Your task to perform on an android device: turn off picture-in-picture Image 0: 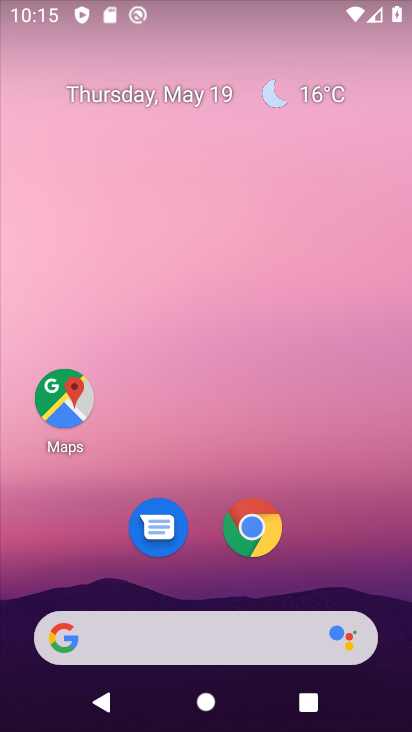
Step 0: click (204, 188)
Your task to perform on an android device: turn off picture-in-picture Image 1: 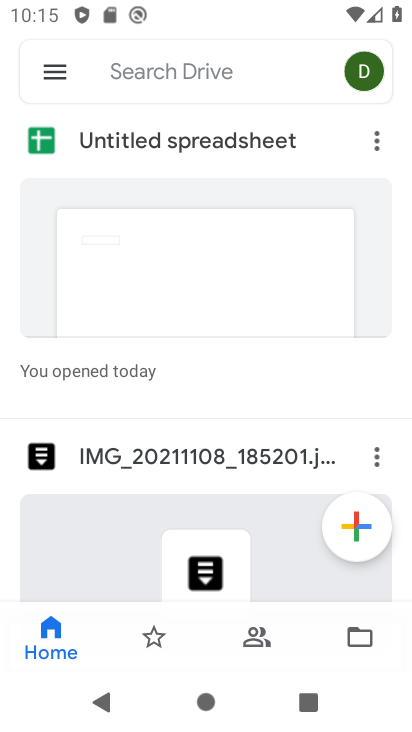
Step 1: press home button
Your task to perform on an android device: turn off picture-in-picture Image 2: 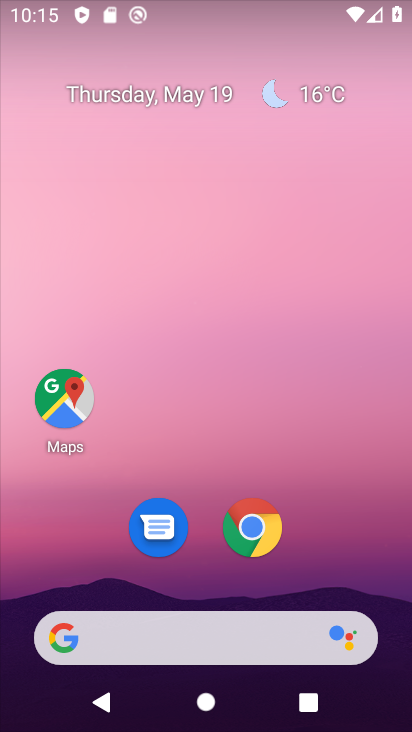
Step 2: click (258, 528)
Your task to perform on an android device: turn off picture-in-picture Image 3: 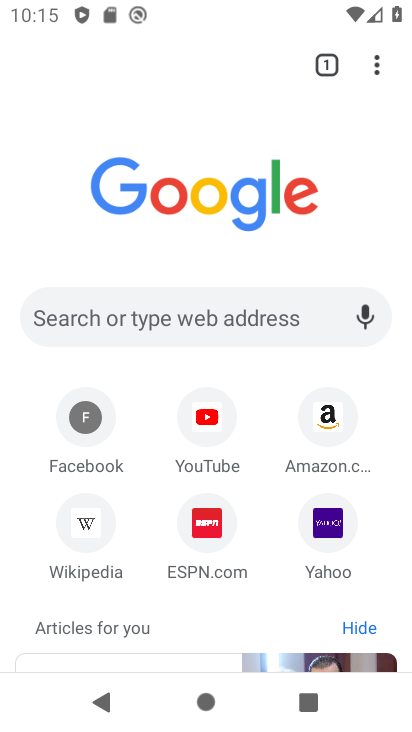
Step 3: press home button
Your task to perform on an android device: turn off picture-in-picture Image 4: 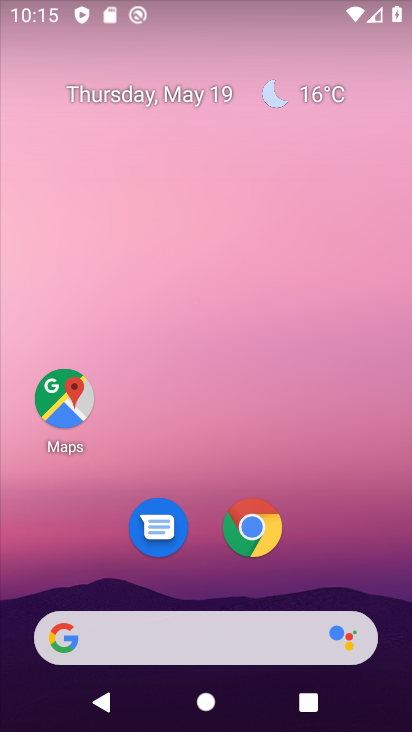
Step 4: click (247, 530)
Your task to perform on an android device: turn off picture-in-picture Image 5: 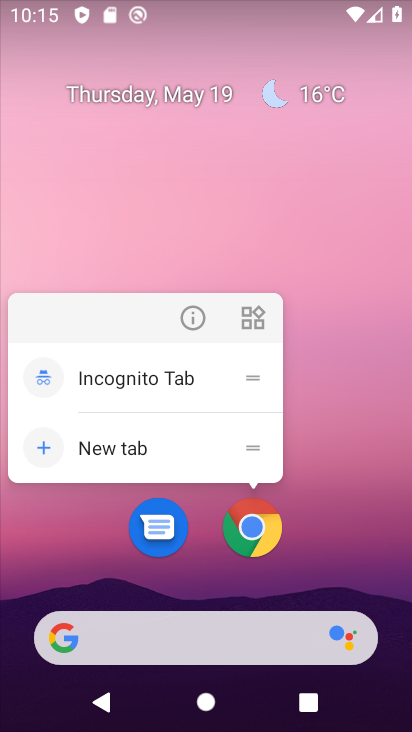
Step 5: click (191, 317)
Your task to perform on an android device: turn off picture-in-picture Image 6: 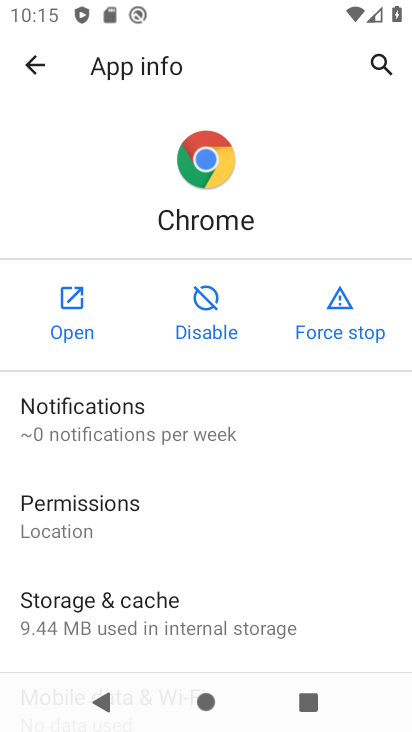
Step 6: drag from (187, 568) to (174, 308)
Your task to perform on an android device: turn off picture-in-picture Image 7: 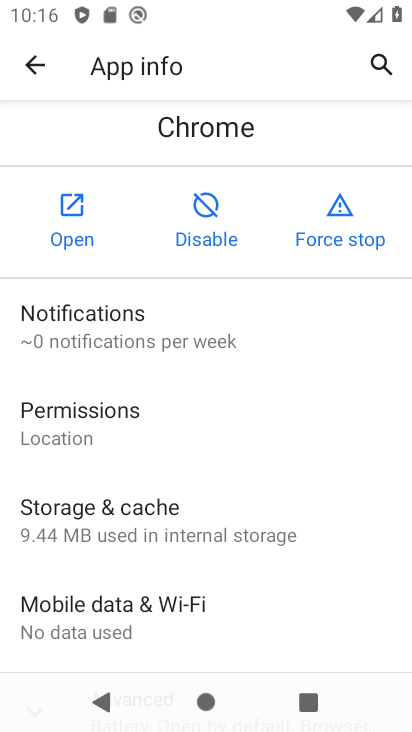
Step 7: drag from (131, 651) to (112, 378)
Your task to perform on an android device: turn off picture-in-picture Image 8: 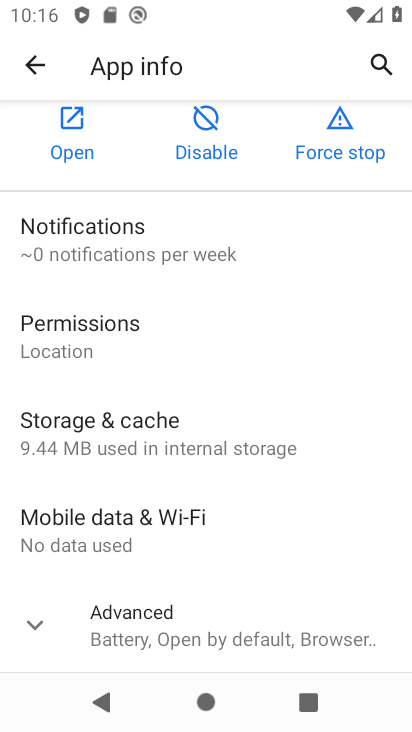
Step 8: click (140, 631)
Your task to perform on an android device: turn off picture-in-picture Image 9: 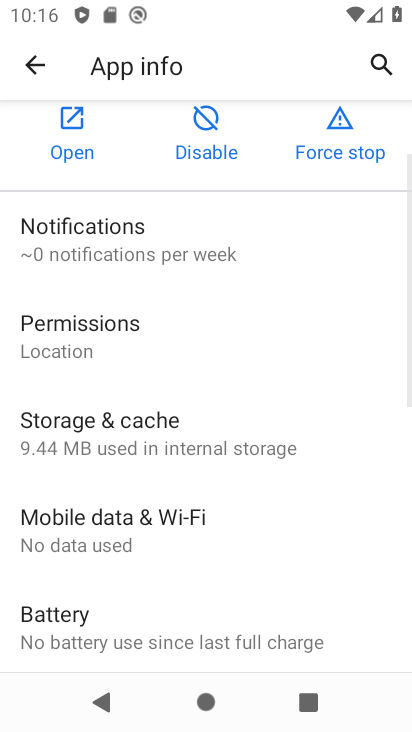
Step 9: drag from (144, 660) to (151, 383)
Your task to perform on an android device: turn off picture-in-picture Image 10: 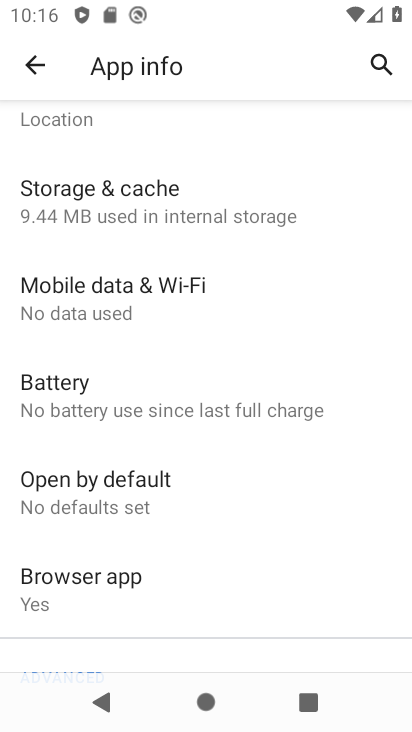
Step 10: drag from (58, 657) to (46, 351)
Your task to perform on an android device: turn off picture-in-picture Image 11: 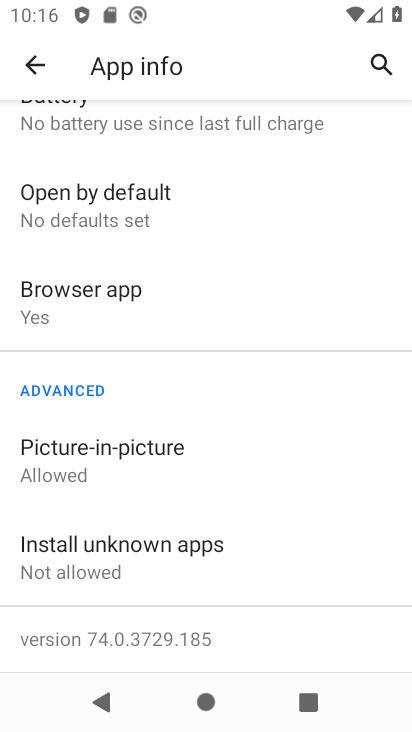
Step 11: click (67, 450)
Your task to perform on an android device: turn off picture-in-picture Image 12: 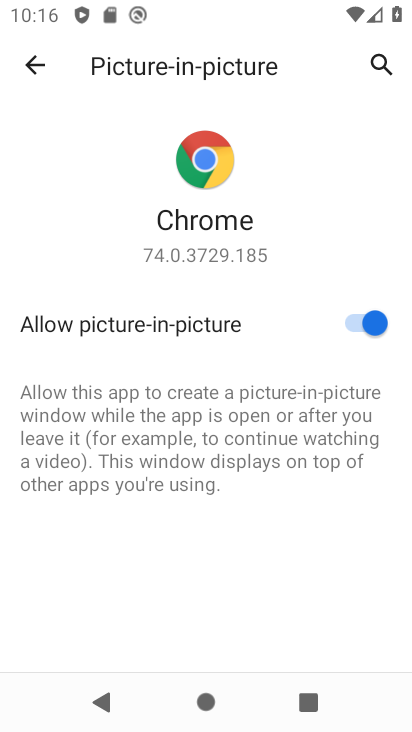
Step 12: click (357, 321)
Your task to perform on an android device: turn off picture-in-picture Image 13: 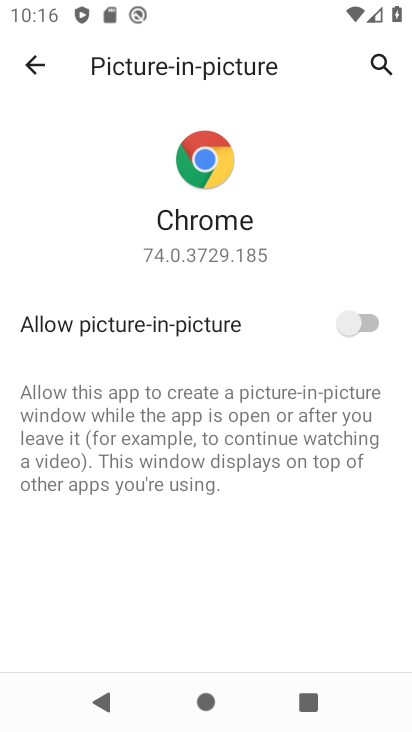
Step 13: task complete